Your task to perform on an android device: Open maps Image 0: 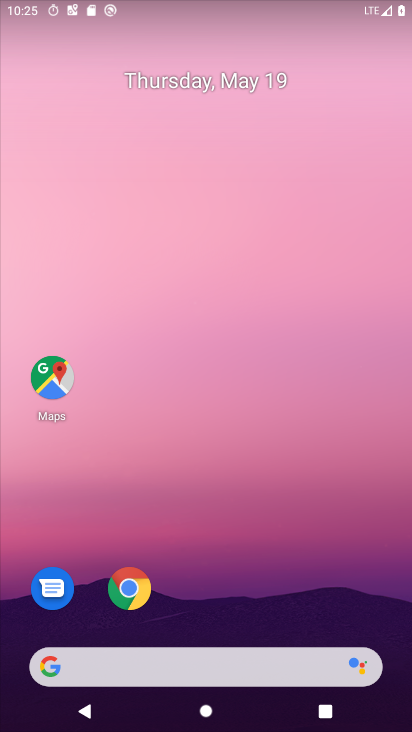
Step 0: click (49, 382)
Your task to perform on an android device: Open maps Image 1: 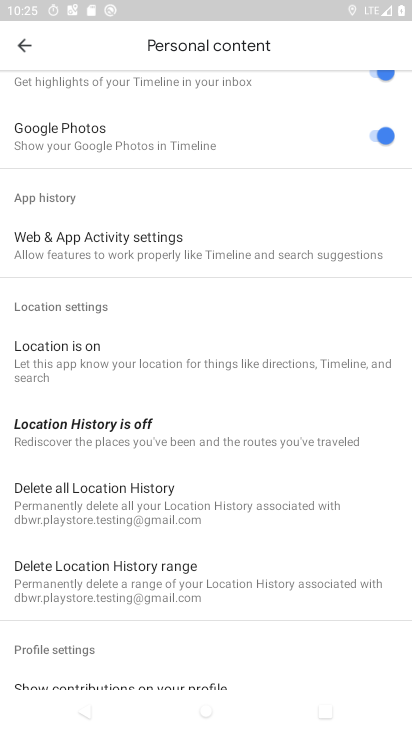
Step 1: click (32, 45)
Your task to perform on an android device: Open maps Image 2: 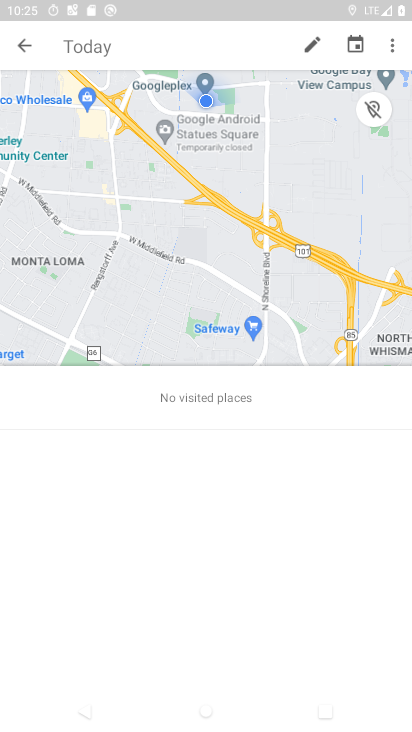
Step 2: task complete